Your task to perform on an android device: Search for pizza restaurants on Maps Image 0: 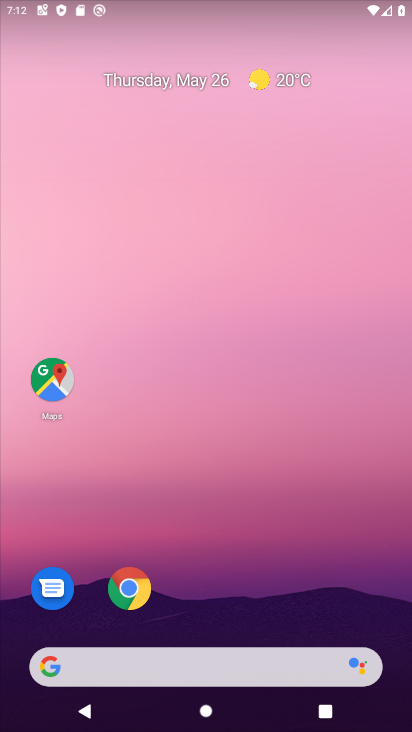
Step 0: drag from (389, 623) to (264, 26)
Your task to perform on an android device: Search for pizza restaurants on Maps Image 1: 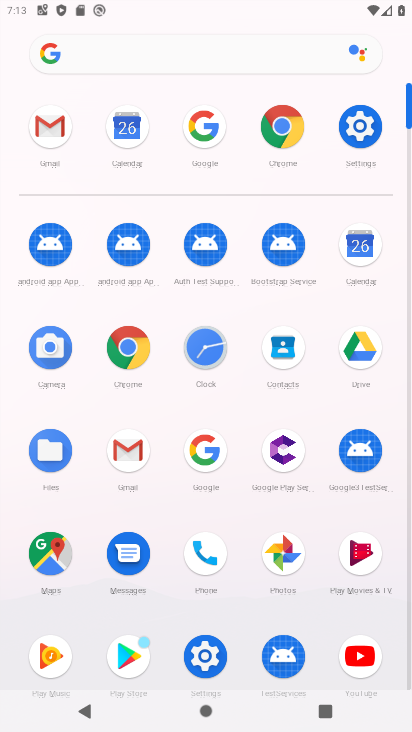
Step 1: click (52, 561)
Your task to perform on an android device: Search for pizza restaurants on Maps Image 2: 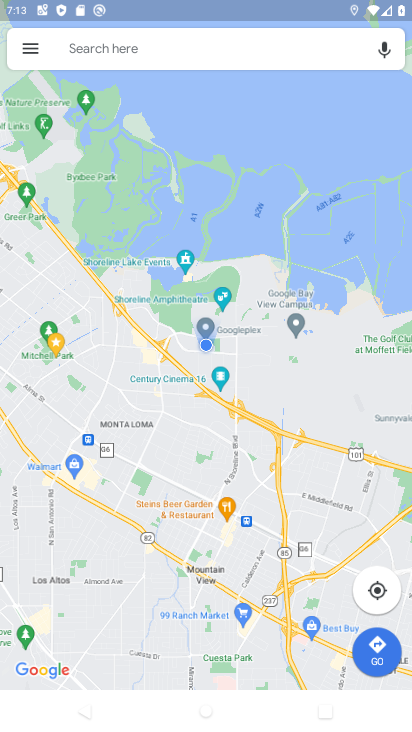
Step 2: click (167, 59)
Your task to perform on an android device: Search for pizza restaurants on Maps Image 3: 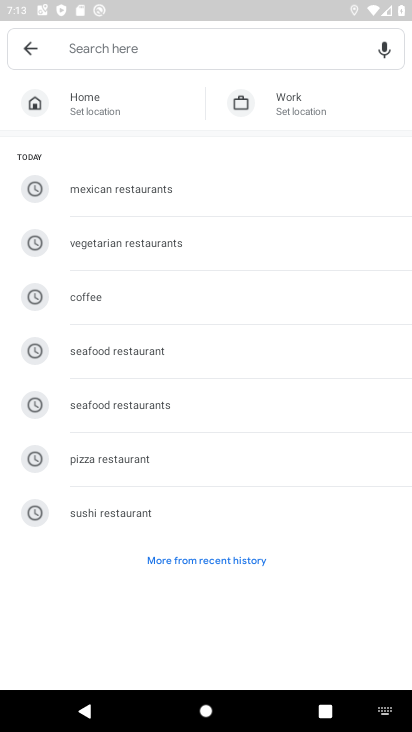
Step 3: click (145, 463)
Your task to perform on an android device: Search for pizza restaurants on Maps Image 4: 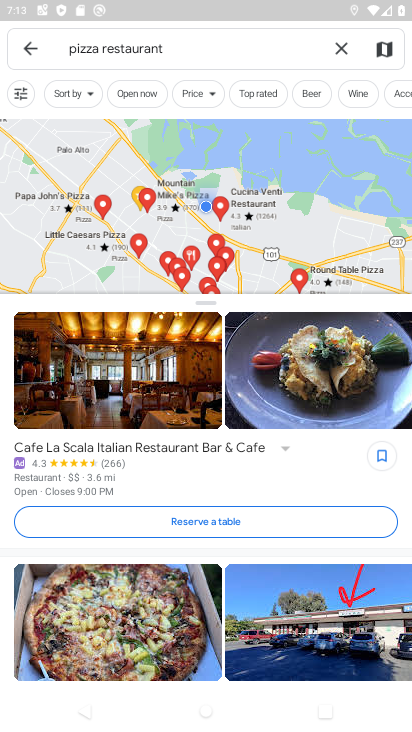
Step 4: task complete